Your task to perform on an android device: What is the news today? Image 0: 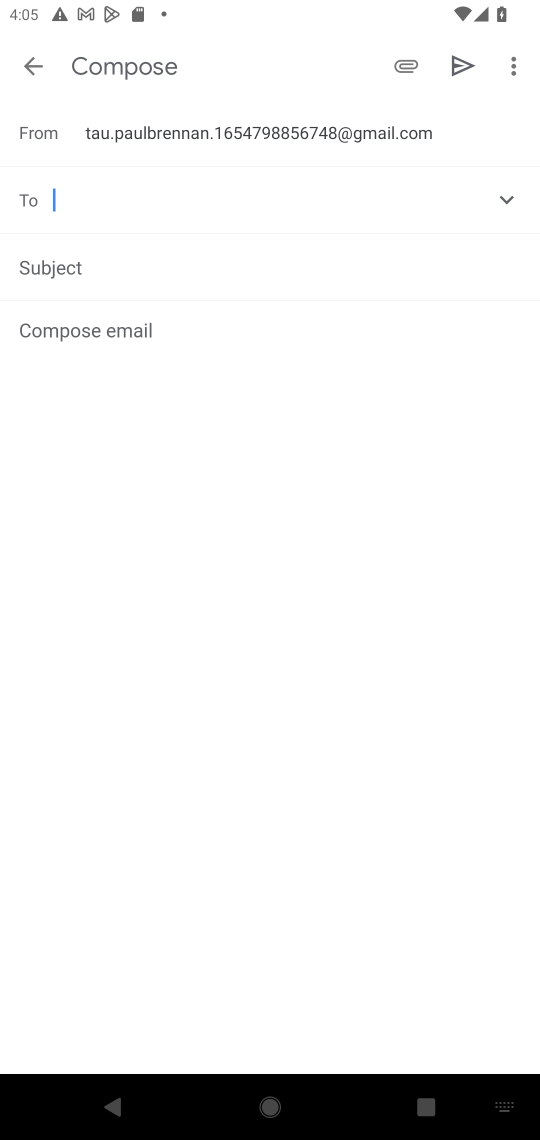
Step 0: press home button
Your task to perform on an android device: What is the news today? Image 1: 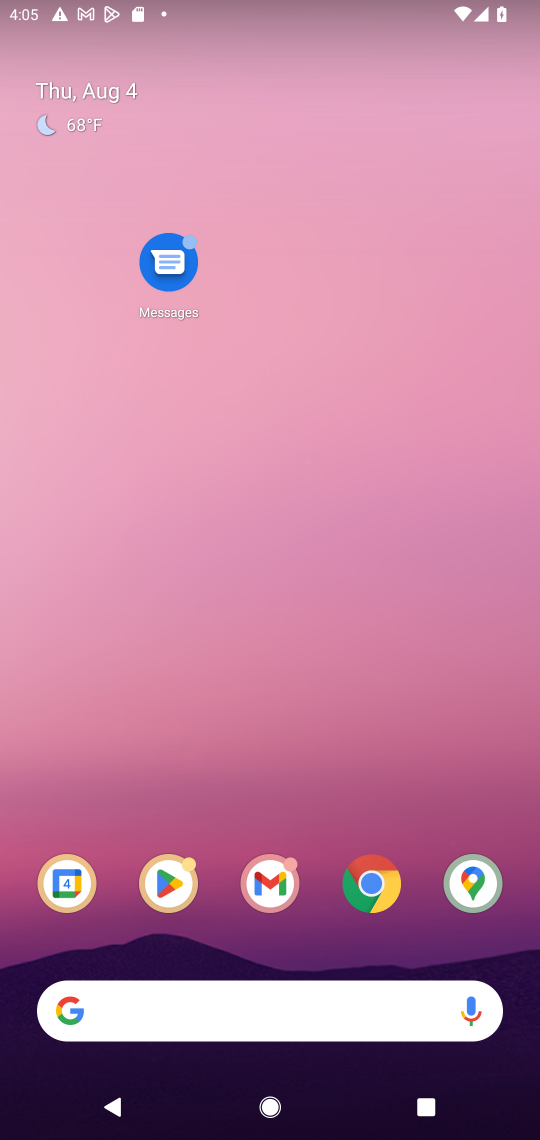
Step 1: task complete